Your task to perform on an android device: Go to Reddit.com Image 0: 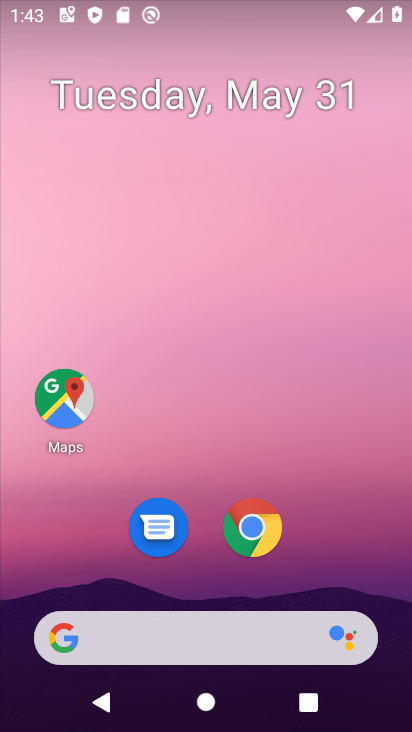
Step 0: drag from (333, 476) to (290, 59)
Your task to perform on an android device: Go to Reddit.com Image 1: 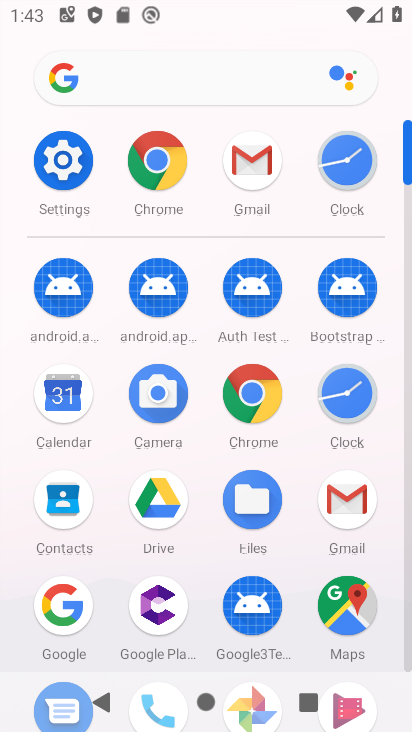
Step 1: click (156, 163)
Your task to perform on an android device: Go to Reddit.com Image 2: 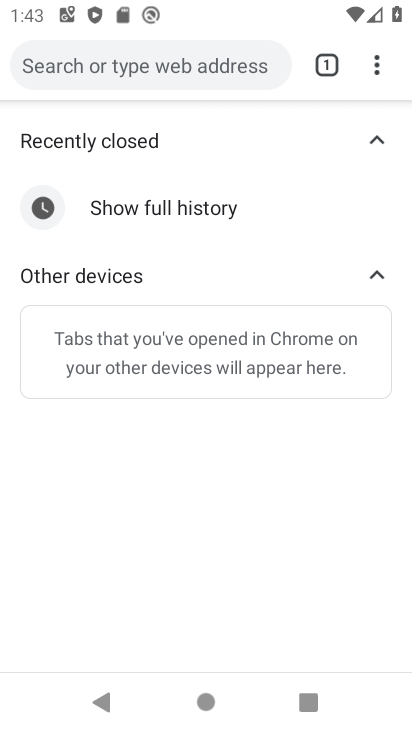
Step 2: click (148, 64)
Your task to perform on an android device: Go to Reddit.com Image 3: 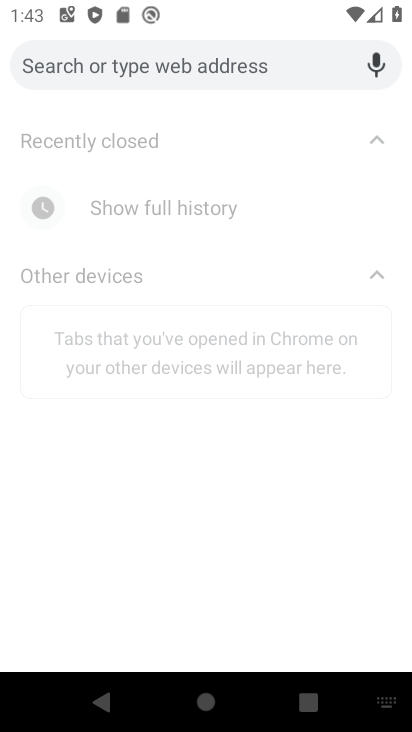
Step 3: type "reddit"
Your task to perform on an android device: Go to Reddit.com Image 4: 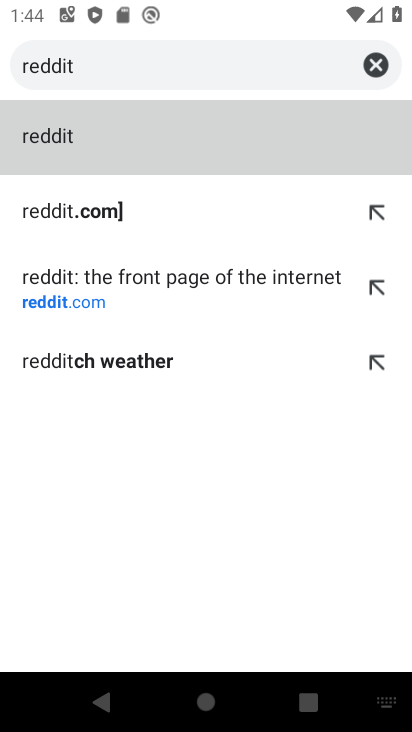
Step 4: click (39, 276)
Your task to perform on an android device: Go to Reddit.com Image 5: 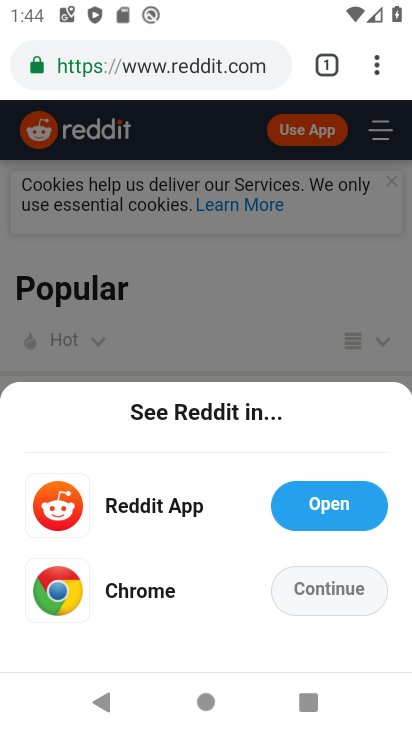
Step 5: task complete